Your task to perform on an android device: toggle sleep mode Image 0: 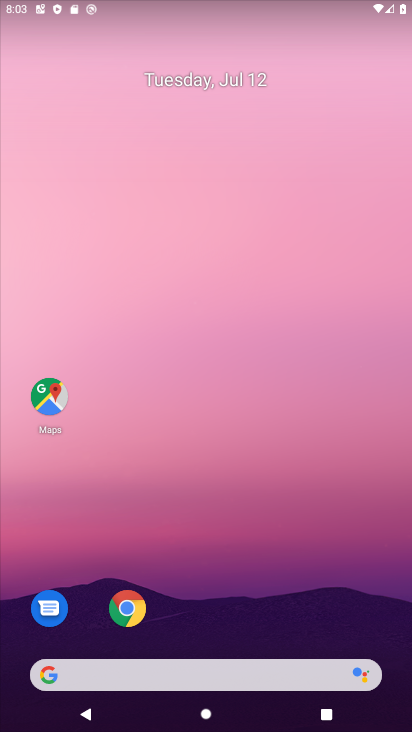
Step 0: drag from (185, 7) to (154, 620)
Your task to perform on an android device: toggle sleep mode Image 1: 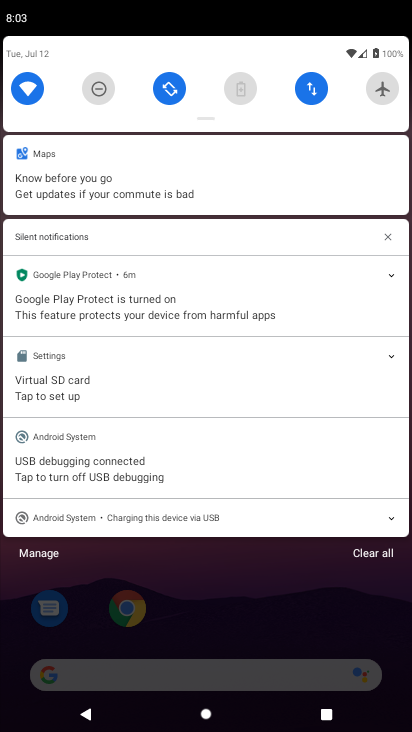
Step 1: drag from (221, 45) to (150, 609)
Your task to perform on an android device: toggle sleep mode Image 2: 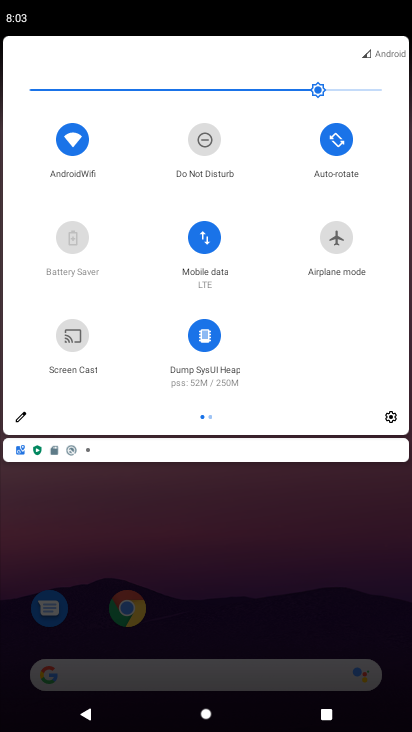
Step 2: click (393, 424)
Your task to perform on an android device: toggle sleep mode Image 3: 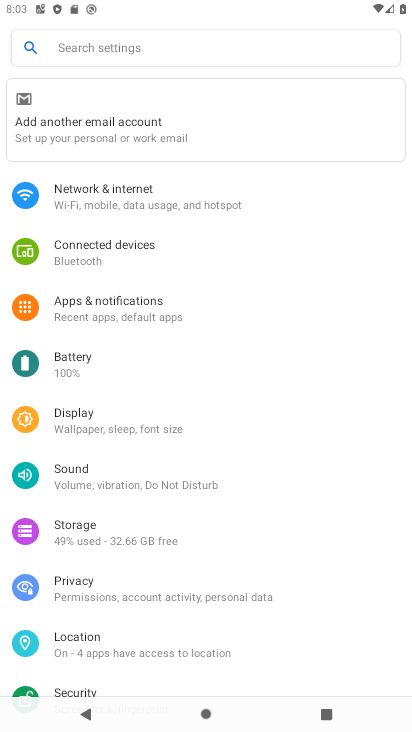
Step 3: task complete